Your task to perform on an android device: Show me productivity apps on the Play Store Image 0: 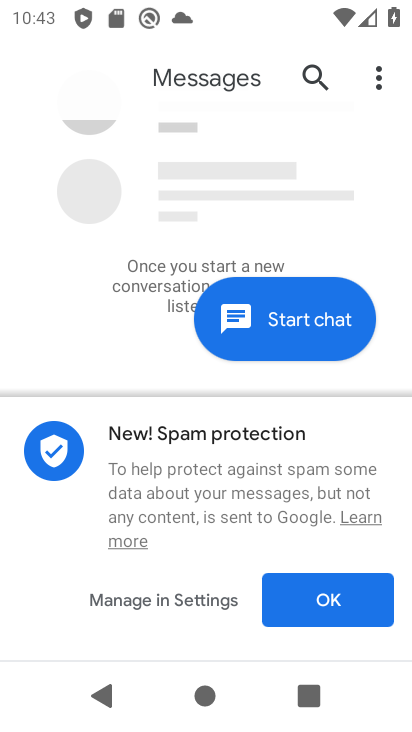
Step 0: press home button
Your task to perform on an android device: Show me productivity apps on the Play Store Image 1: 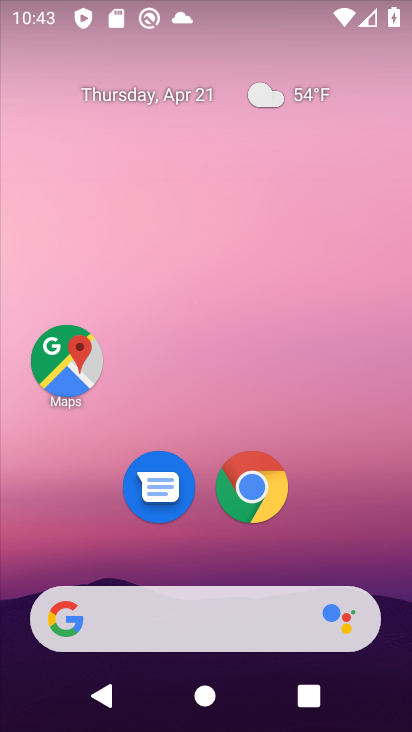
Step 1: drag from (366, 506) to (352, 128)
Your task to perform on an android device: Show me productivity apps on the Play Store Image 2: 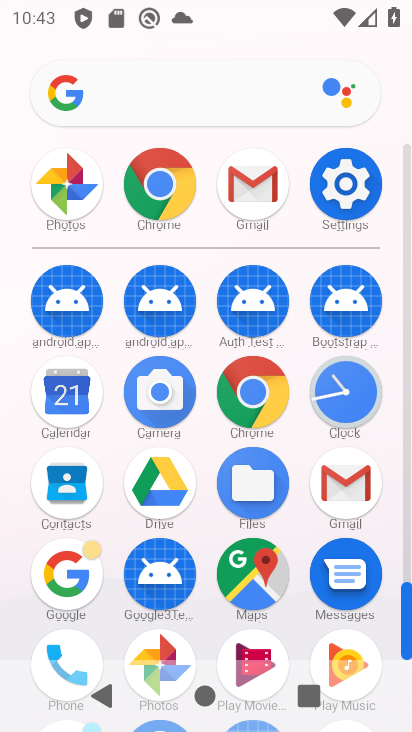
Step 2: drag from (291, 529) to (303, 242)
Your task to perform on an android device: Show me productivity apps on the Play Store Image 3: 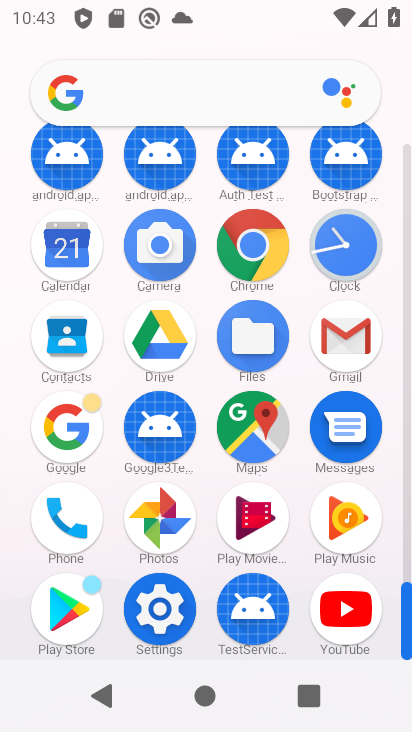
Step 3: click (50, 616)
Your task to perform on an android device: Show me productivity apps on the Play Store Image 4: 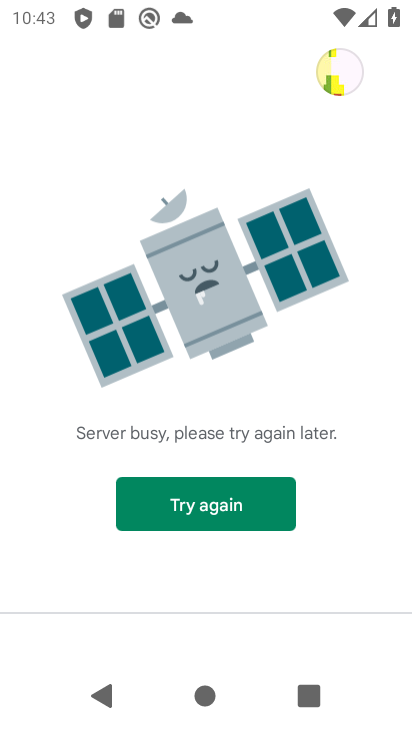
Step 4: task complete